Your task to perform on an android device: How big is the universe? Image 0: 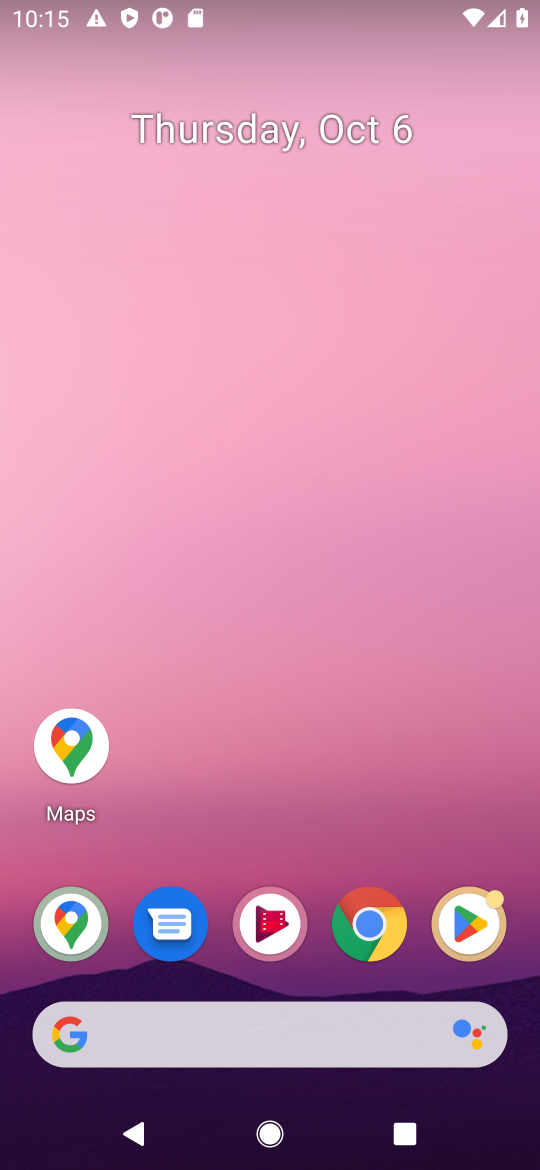
Step 0: click (371, 940)
Your task to perform on an android device: How big is the universe? Image 1: 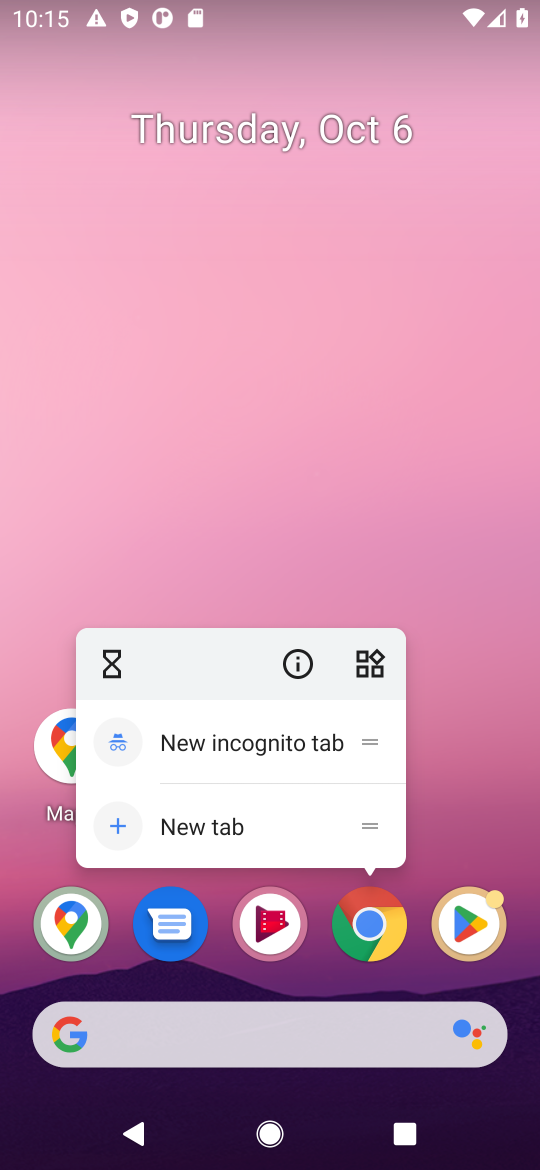
Step 1: click (377, 929)
Your task to perform on an android device: How big is the universe? Image 2: 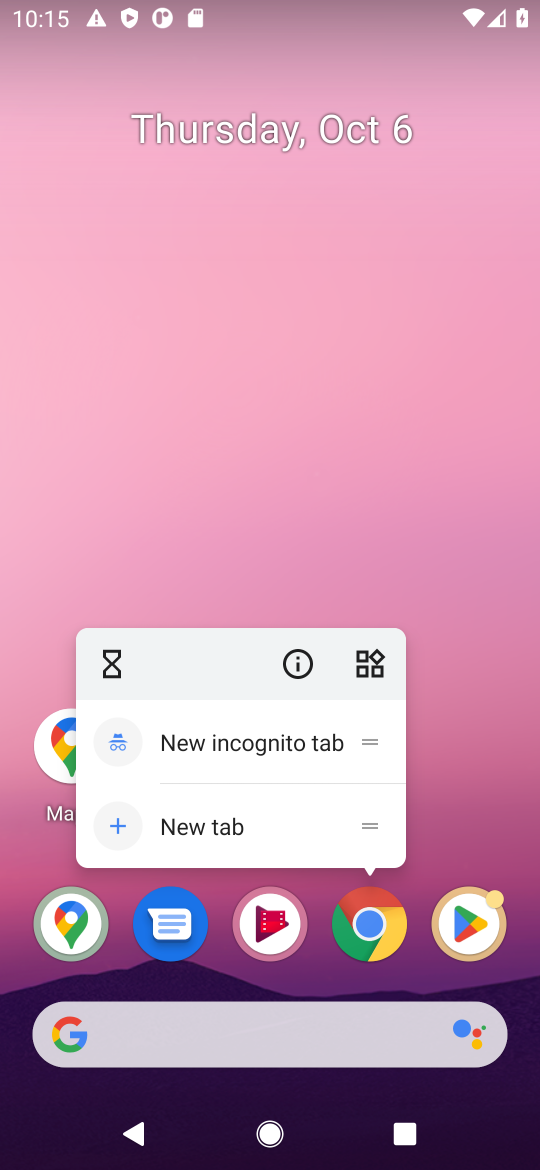
Step 2: click (383, 922)
Your task to perform on an android device: How big is the universe? Image 3: 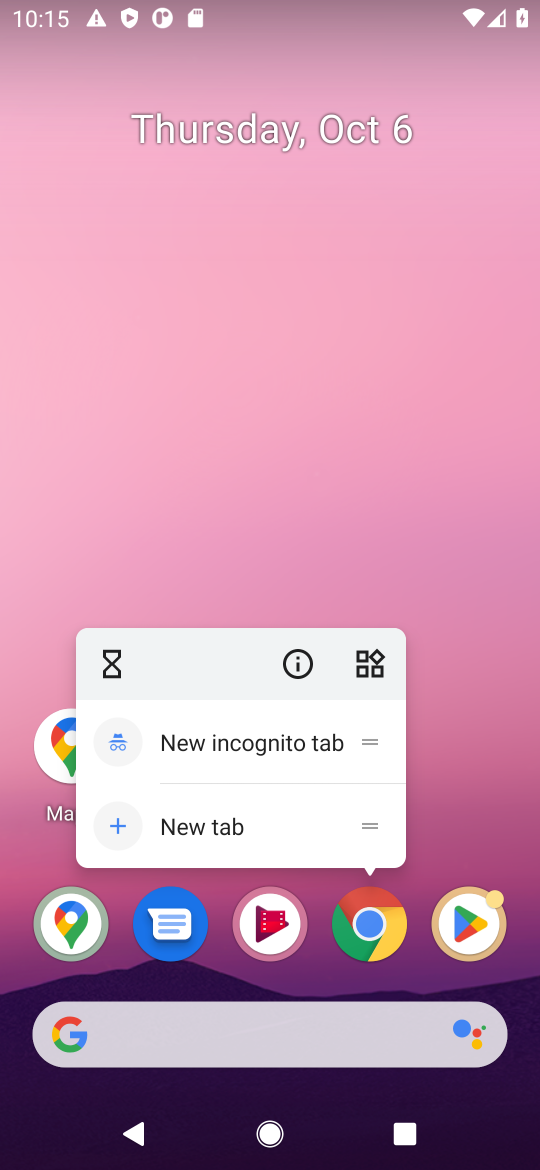
Step 3: click (369, 916)
Your task to perform on an android device: How big is the universe? Image 4: 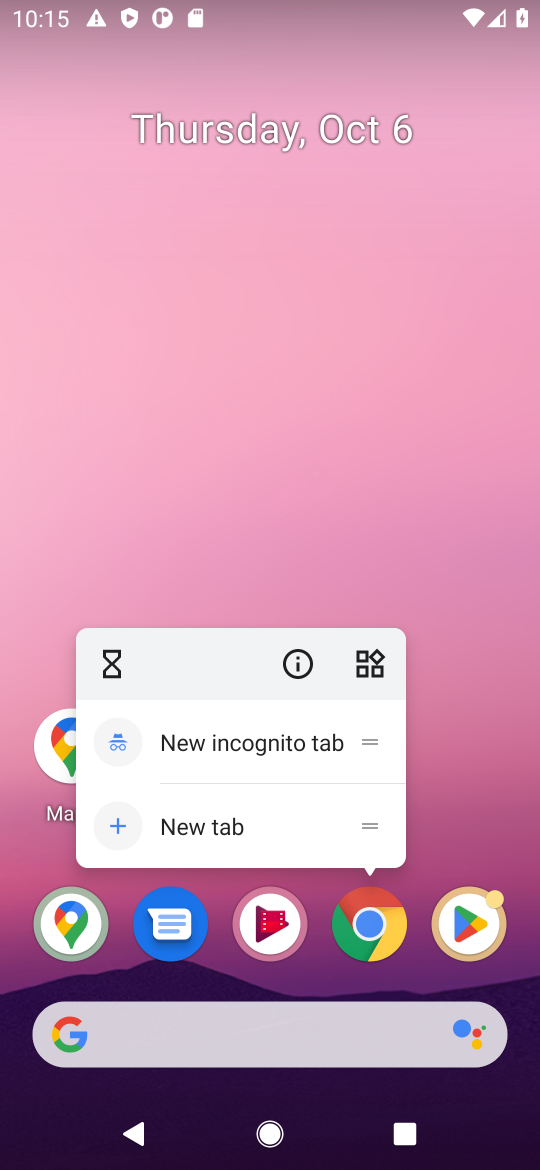
Step 4: click (368, 925)
Your task to perform on an android device: How big is the universe? Image 5: 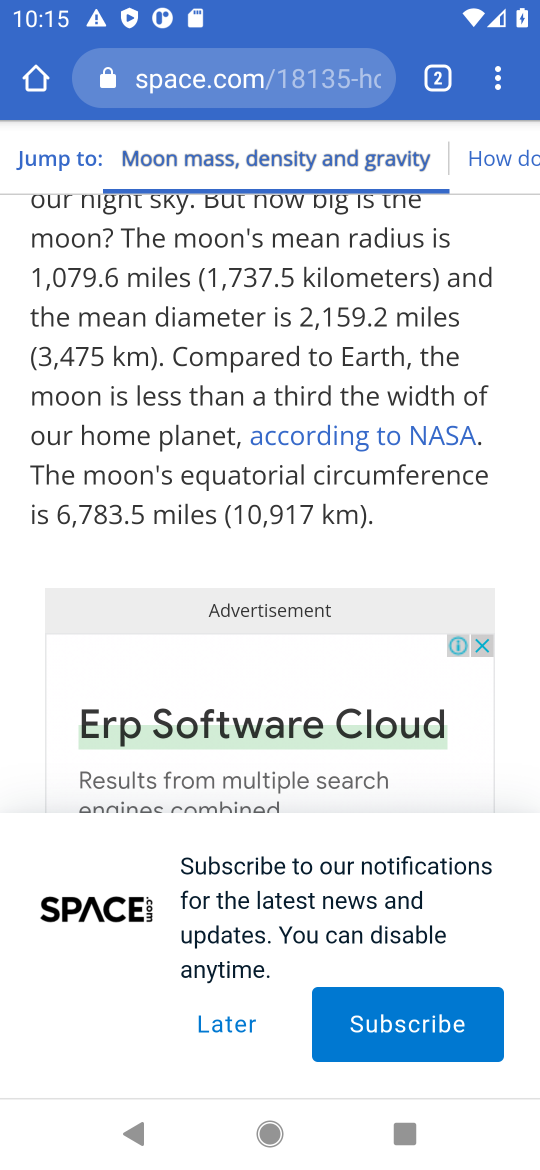
Step 5: click (328, 76)
Your task to perform on an android device: How big is the universe? Image 6: 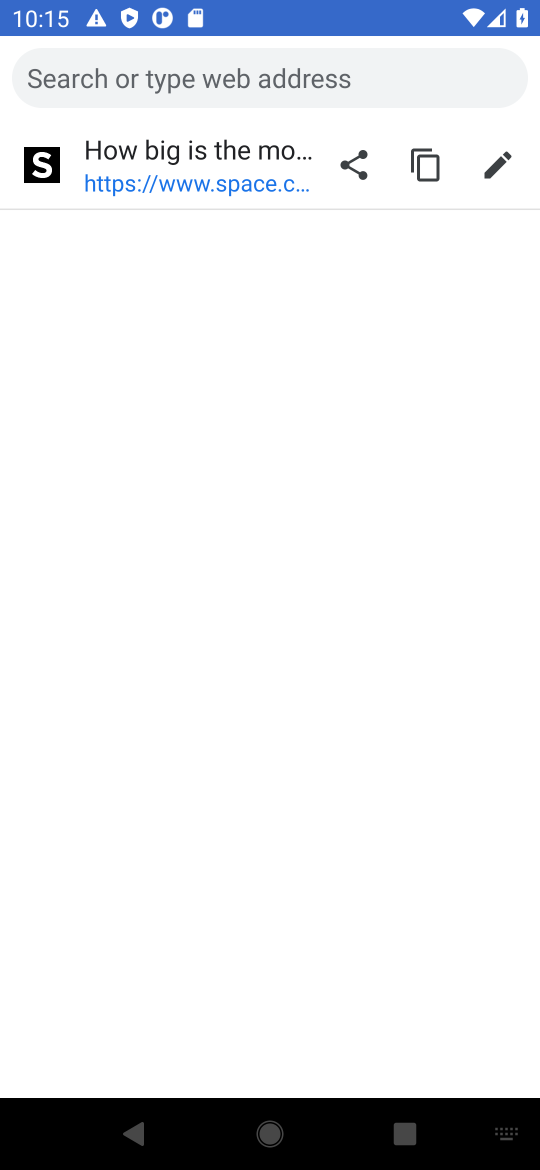
Step 6: type "How big is the universe"
Your task to perform on an android device: How big is the universe? Image 7: 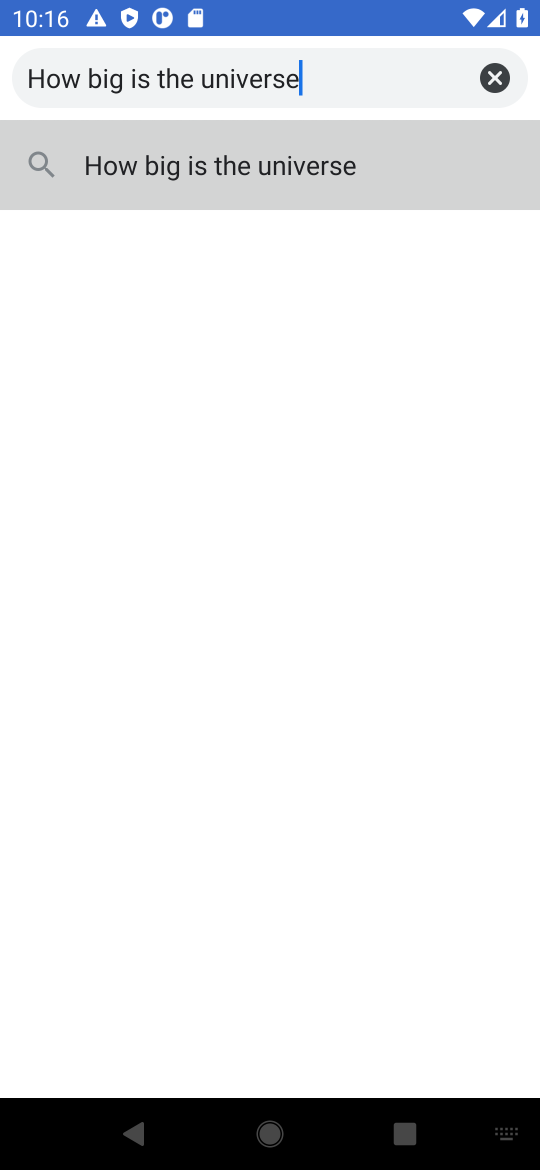
Step 7: click (227, 169)
Your task to perform on an android device: How big is the universe? Image 8: 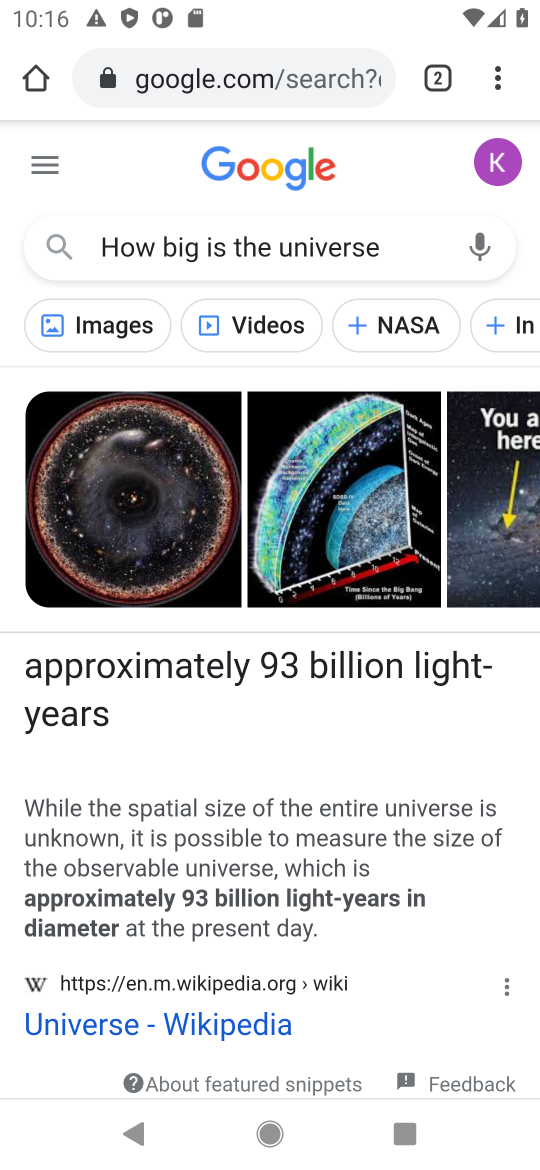
Step 8: drag from (337, 972) to (455, 481)
Your task to perform on an android device: How big is the universe? Image 9: 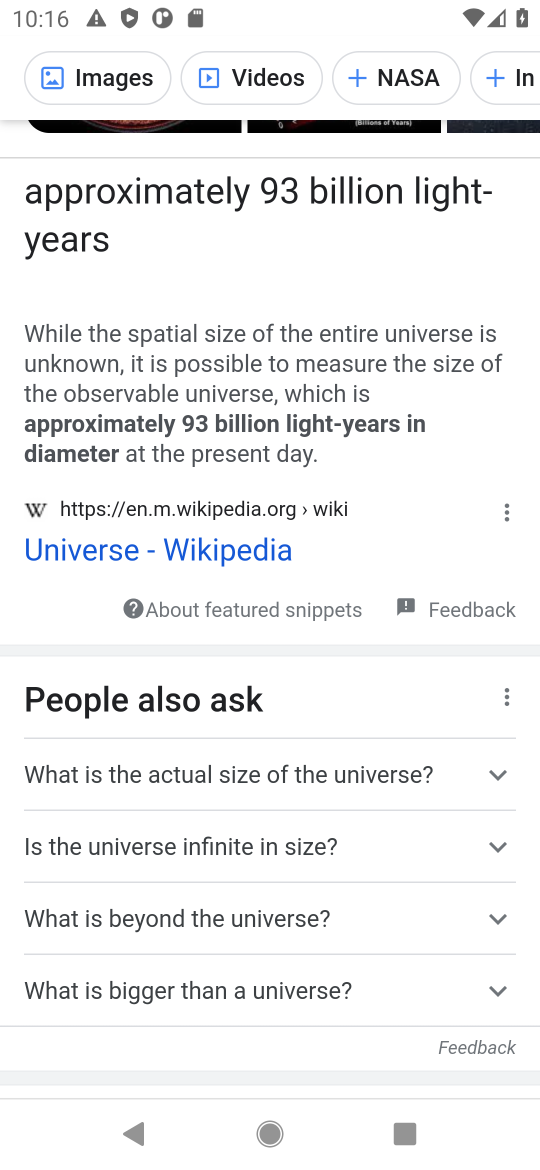
Step 9: click (231, 546)
Your task to perform on an android device: How big is the universe? Image 10: 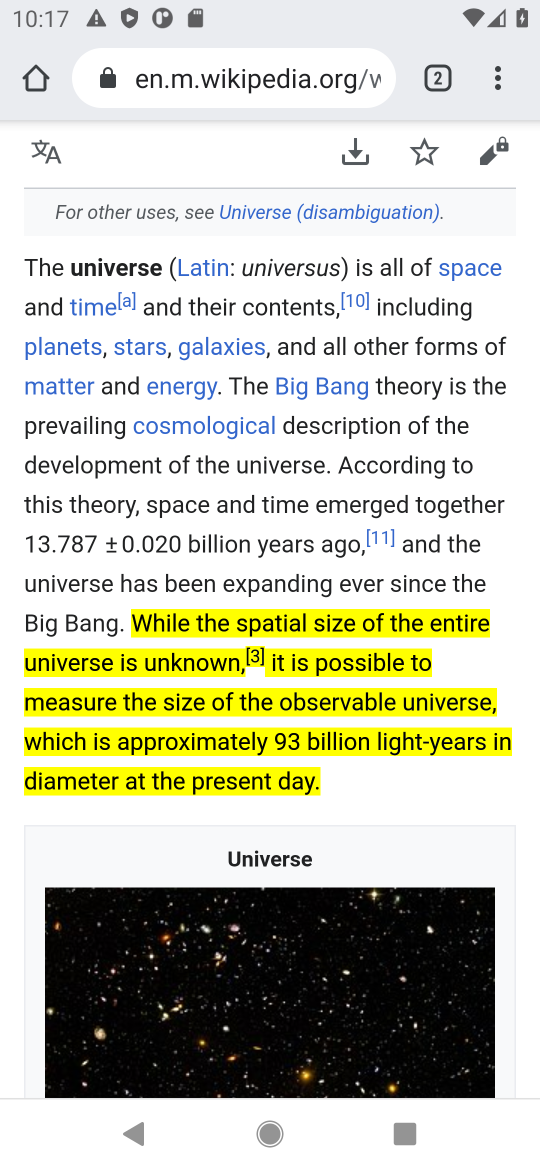
Step 10: task complete